Your task to perform on an android device: What is the recent news? Image 0: 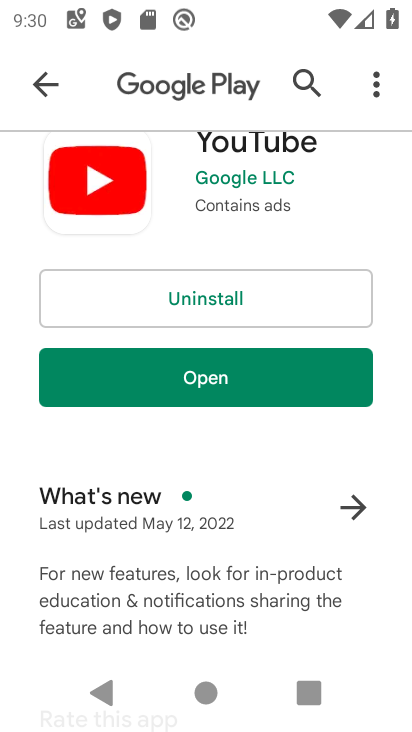
Step 0: press back button
Your task to perform on an android device: What is the recent news? Image 1: 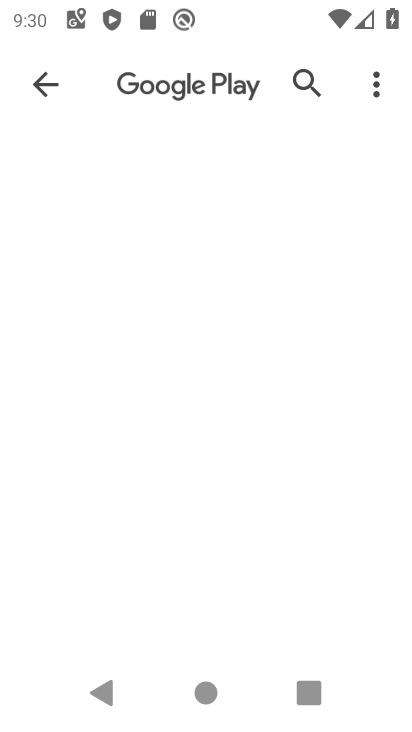
Step 1: task complete